Your task to perform on an android device: Show me popular games on the Play Store Image 0: 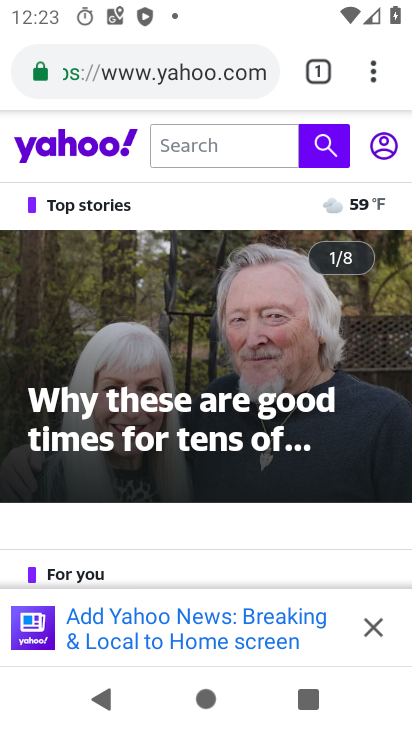
Step 0: press home button
Your task to perform on an android device: Show me popular games on the Play Store Image 1: 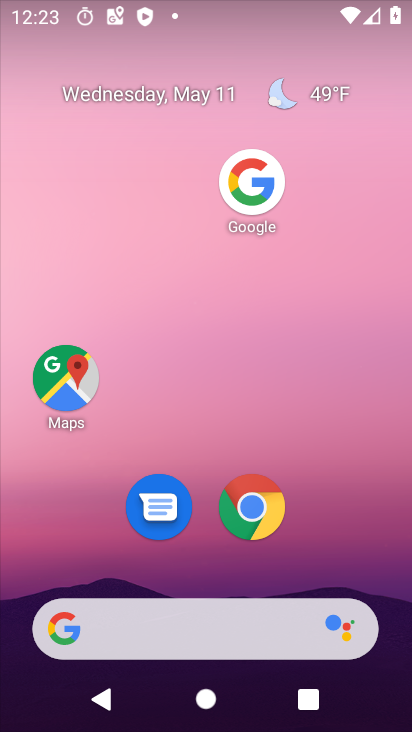
Step 1: drag from (200, 567) to (194, 147)
Your task to perform on an android device: Show me popular games on the Play Store Image 2: 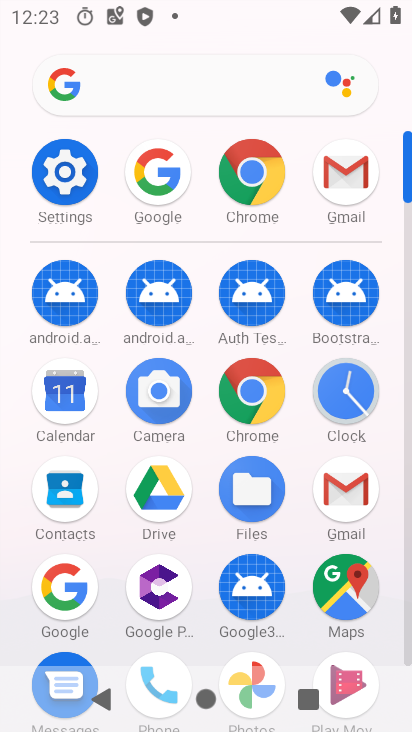
Step 2: drag from (205, 534) to (202, 333)
Your task to perform on an android device: Show me popular games on the Play Store Image 3: 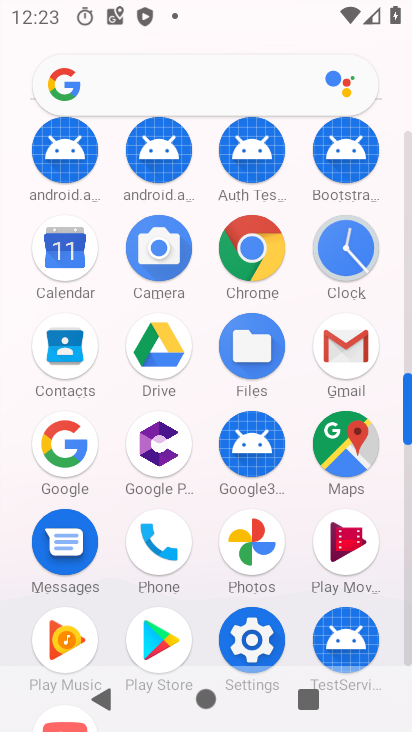
Step 3: click (160, 632)
Your task to perform on an android device: Show me popular games on the Play Store Image 4: 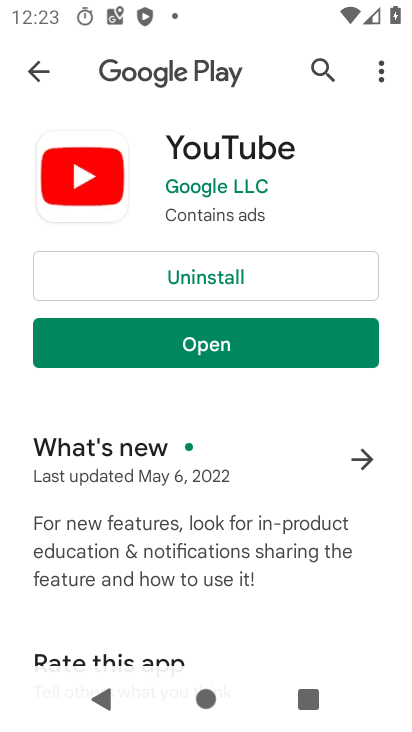
Step 4: press back button
Your task to perform on an android device: Show me popular games on the Play Store Image 5: 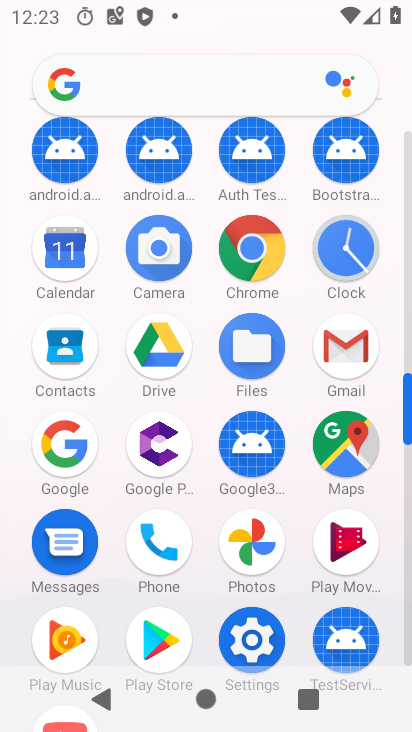
Step 5: click (171, 635)
Your task to perform on an android device: Show me popular games on the Play Store Image 6: 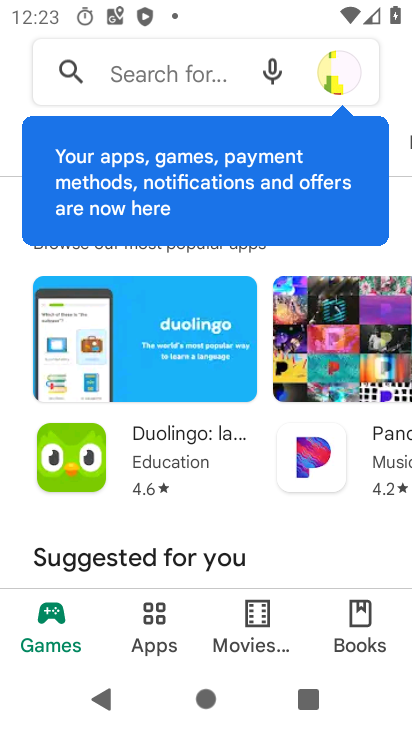
Step 6: drag from (259, 524) to (276, 137)
Your task to perform on an android device: Show me popular games on the Play Store Image 7: 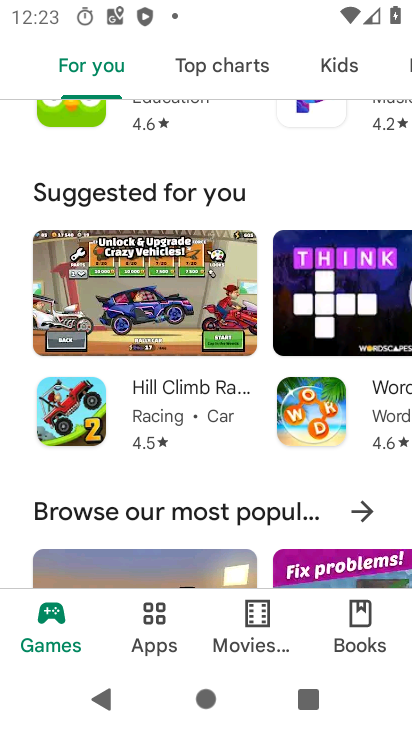
Step 7: click (359, 508)
Your task to perform on an android device: Show me popular games on the Play Store Image 8: 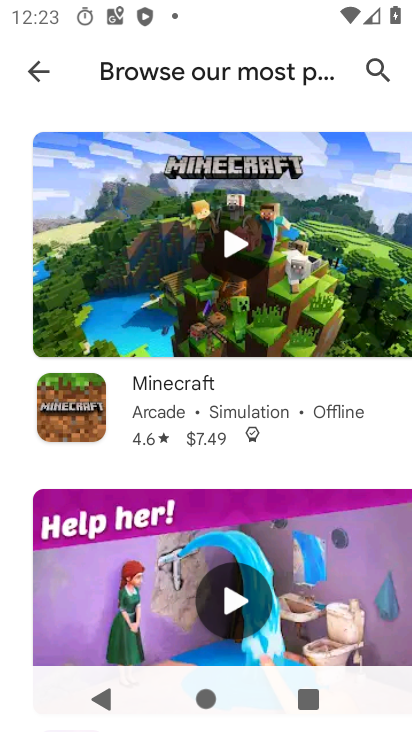
Step 8: task complete